Your task to perform on an android device: Clear the shopping cart on target.com. Search for "alienware aurora" on target.com, select the first entry, add it to the cart, then select checkout. Image 0: 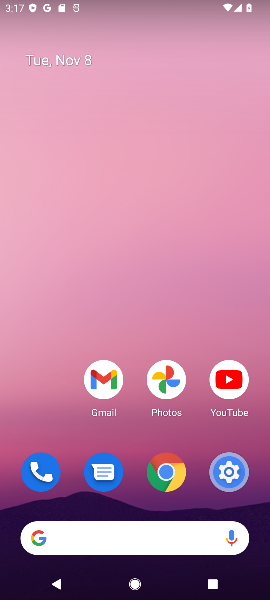
Step 0: click (85, 540)
Your task to perform on an android device: Clear the shopping cart on target.com. Search for "alienware aurora" on target.com, select the first entry, add it to the cart, then select checkout. Image 1: 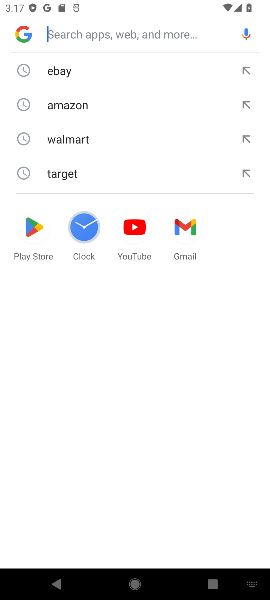
Step 1: click (76, 170)
Your task to perform on an android device: Clear the shopping cart on target.com. Search for "alienware aurora" on target.com, select the first entry, add it to the cart, then select checkout. Image 2: 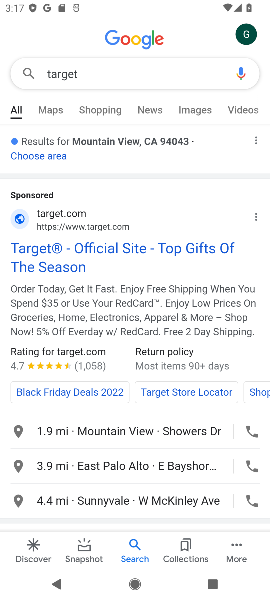
Step 2: click (72, 267)
Your task to perform on an android device: Clear the shopping cart on target.com. Search for "alienware aurora" on target.com, select the first entry, add it to the cart, then select checkout. Image 3: 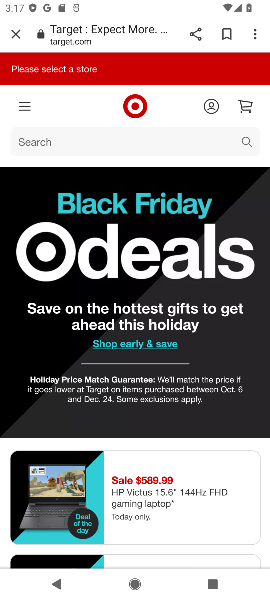
Step 3: click (106, 146)
Your task to perform on an android device: Clear the shopping cart on target.com. Search for "alienware aurora" on target.com, select the first entry, add it to the cart, then select checkout. Image 4: 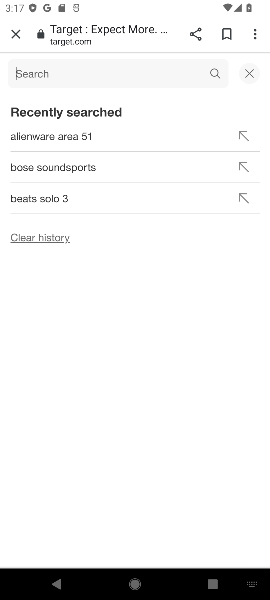
Step 4: type "alienware aurora"
Your task to perform on an android device: Clear the shopping cart on target.com. Search for "alienware aurora" on target.com, select the first entry, add it to the cart, then select checkout. Image 5: 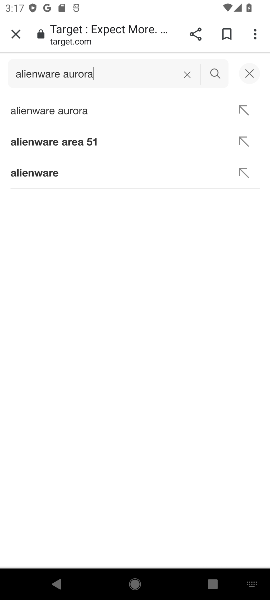
Step 5: click (100, 105)
Your task to perform on an android device: Clear the shopping cart on target.com. Search for "alienware aurora" on target.com, select the first entry, add it to the cart, then select checkout. Image 6: 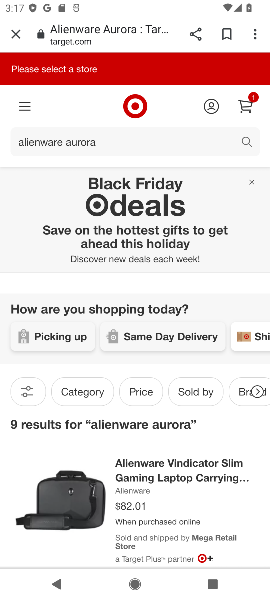
Step 6: task complete